Your task to perform on an android device: Open Google Maps Image 0: 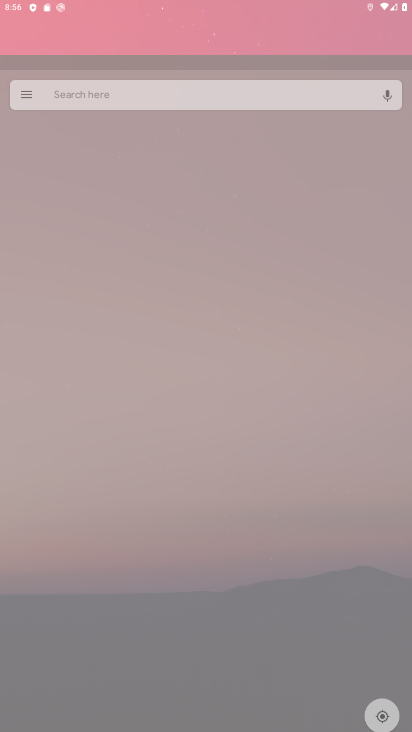
Step 0: drag from (206, 665) to (317, 199)
Your task to perform on an android device: Open Google Maps Image 1: 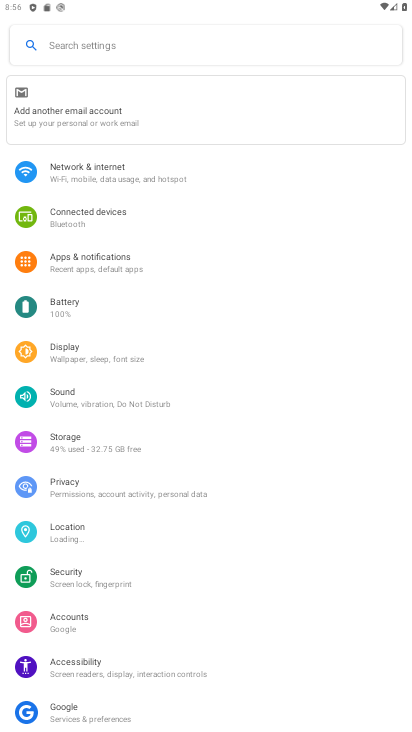
Step 1: press home button
Your task to perform on an android device: Open Google Maps Image 2: 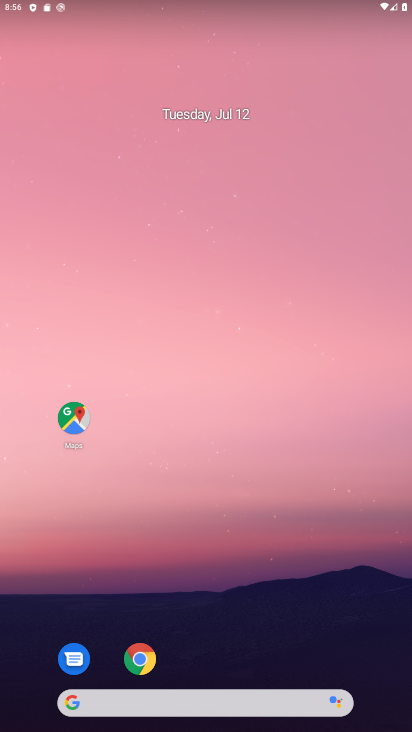
Step 2: drag from (246, 671) to (315, 145)
Your task to perform on an android device: Open Google Maps Image 3: 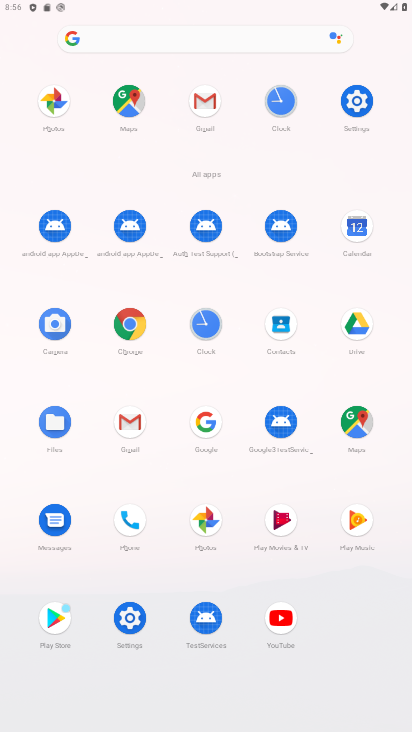
Step 3: click (371, 419)
Your task to perform on an android device: Open Google Maps Image 4: 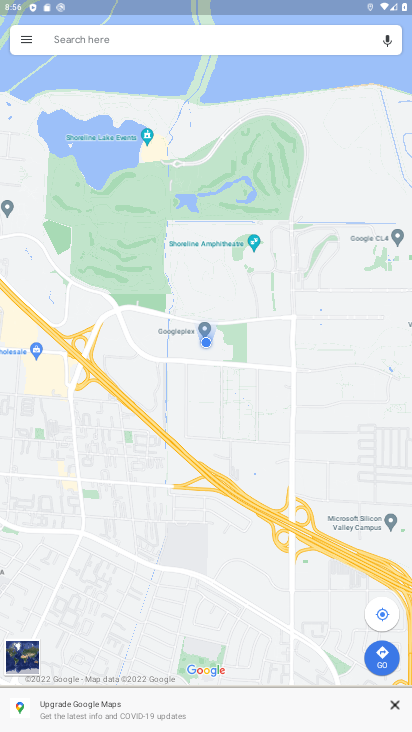
Step 4: click (397, 705)
Your task to perform on an android device: Open Google Maps Image 5: 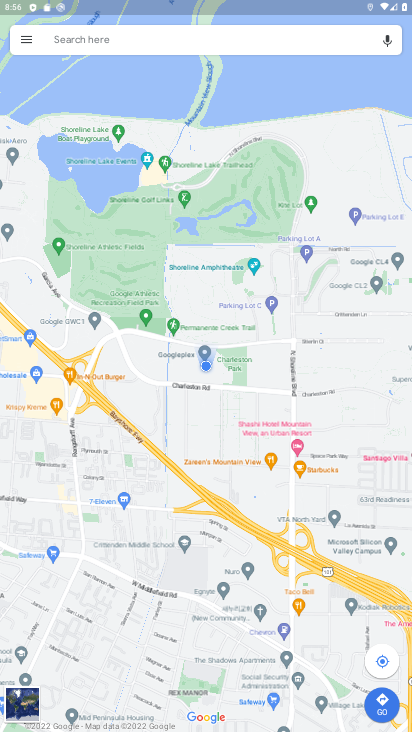
Step 5: task complete